Your task to perform on an android device: read, delete, or share a saved page in the chrome app Image 0: 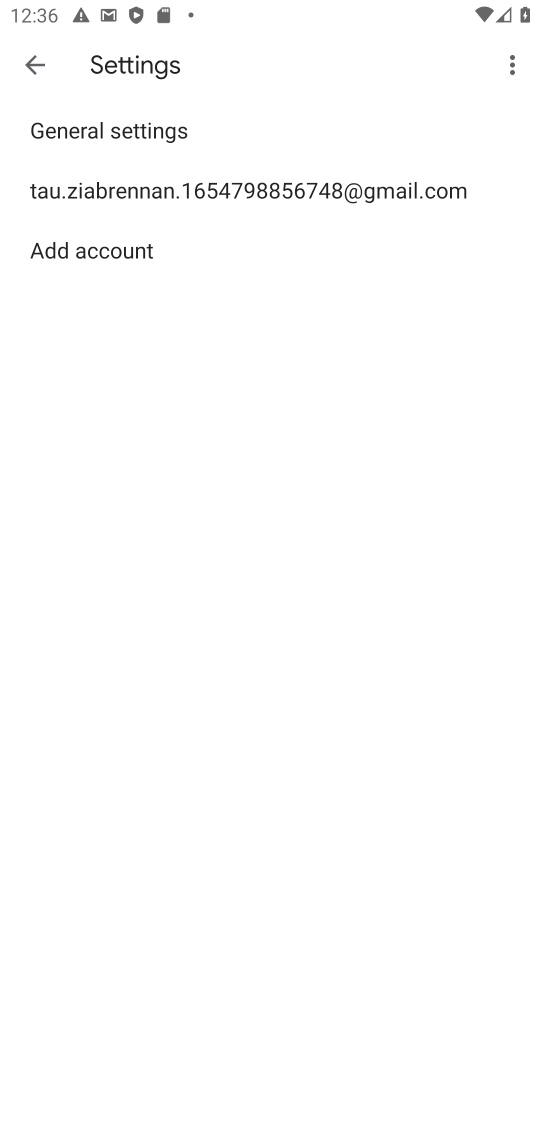
Step 0: press home button
Your task to perform on an android device: read, delete, or share a saved page in the chrome app Image 1: 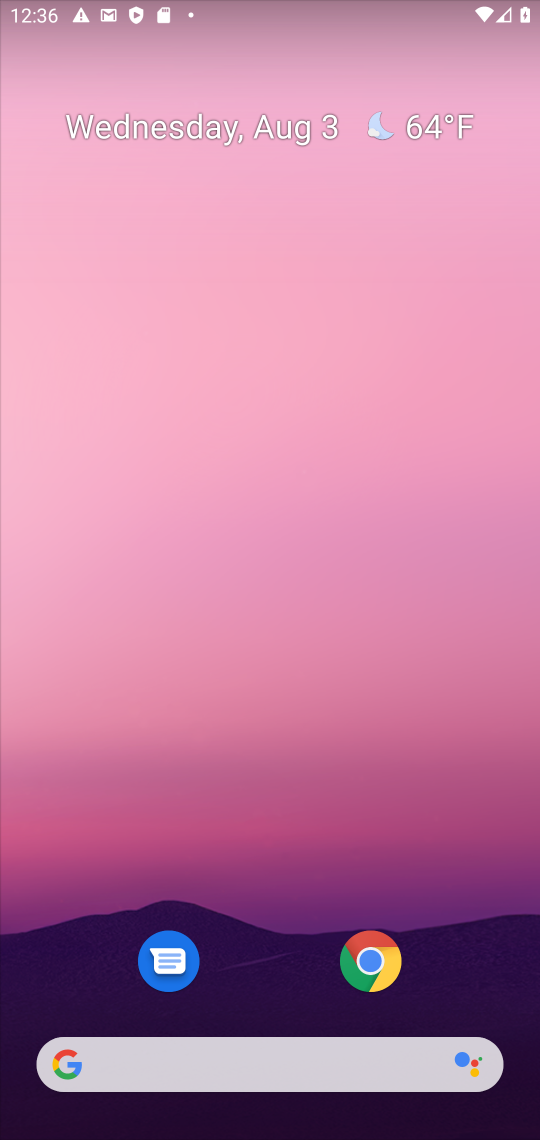
Step 1: click (372, 981)
Your task to perform on an android device: read, delete, or share a saved page in the chrome app Image 2: 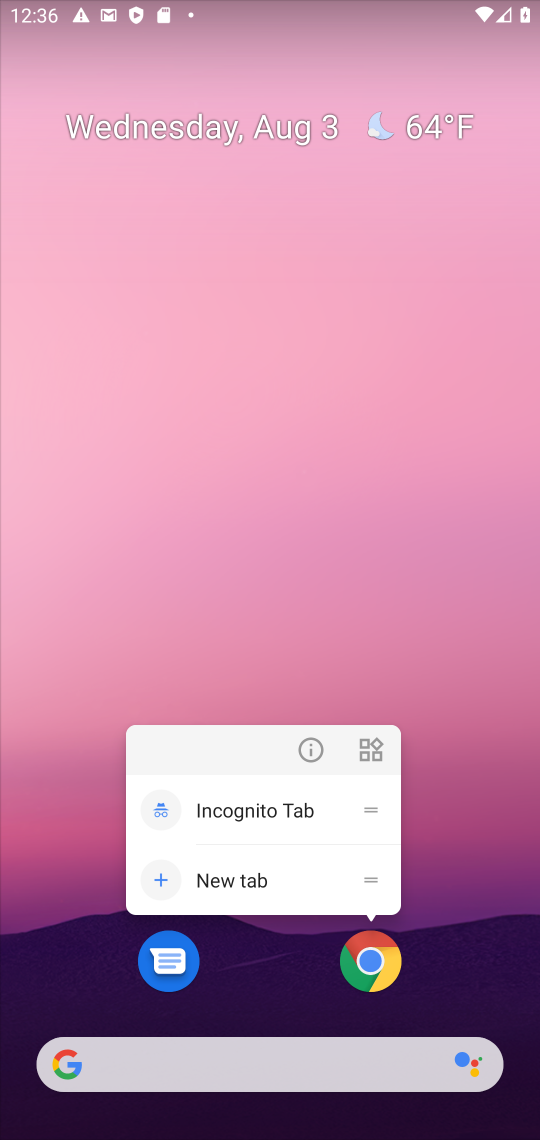
Step 2: click (372, 981)
Your task to perform on an android device: read, delete, or share a saved page in the chrome app Image 3: 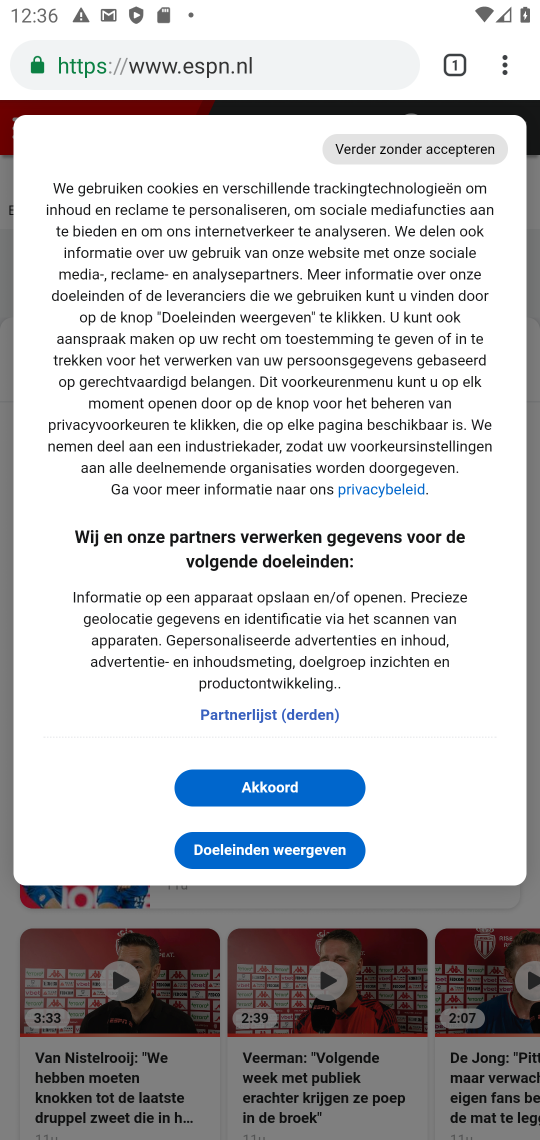
Step 3: drag from (508, 61) to (303, 416)
Your task to perform on an android device: read, delete, or share a saved page in the chrome app Image 4: 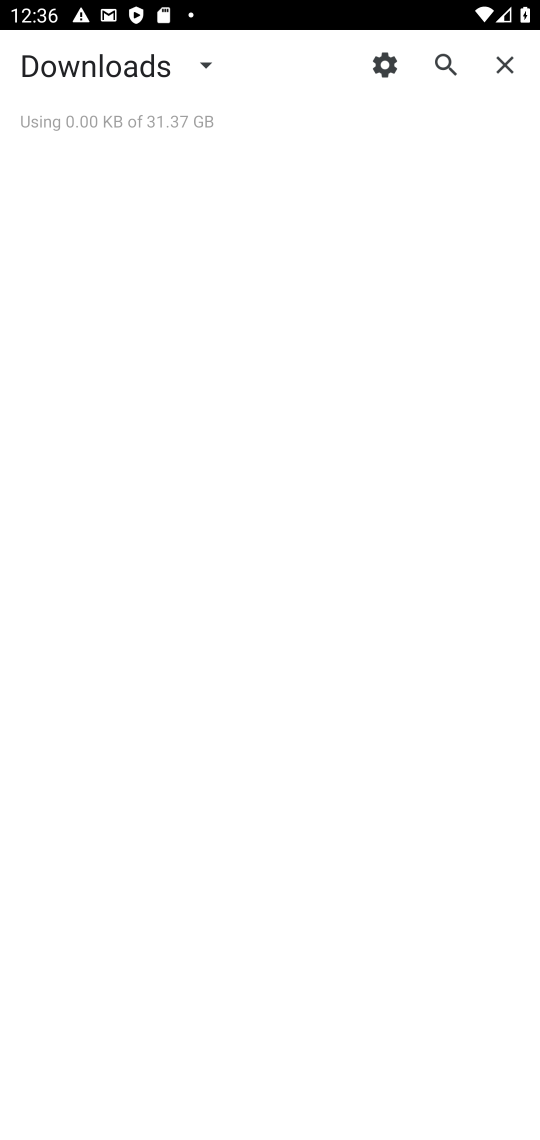
Step 4: click (199, 68)
Your task to perform on an android device: read, delete, or share a saved page in the chrome app Image 5: 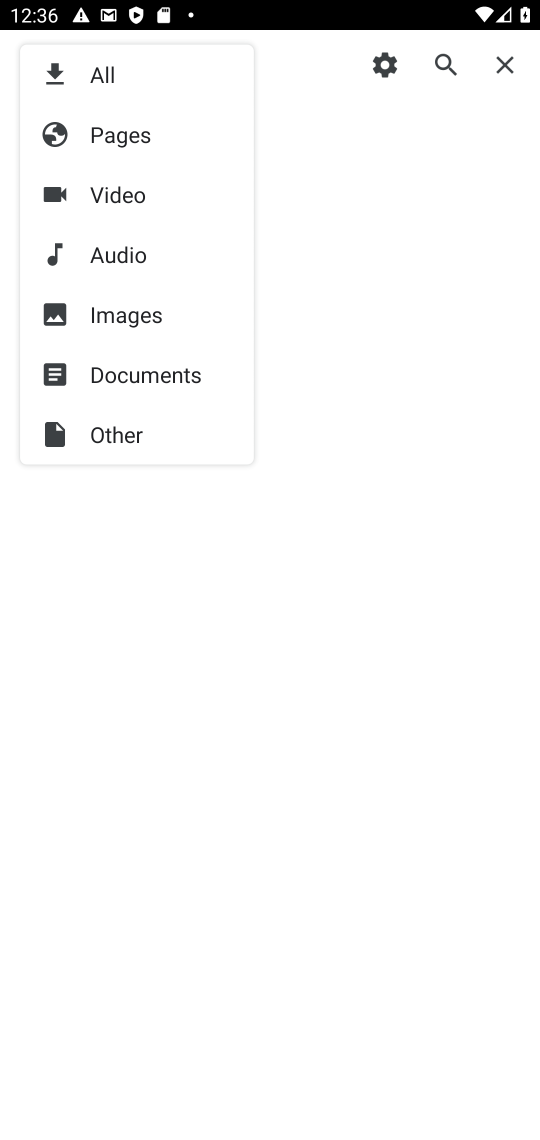
Step 5: click (111, 135)
Your task to perform on an android device: read, delete, or share a saved page in the chrome app Image 6: 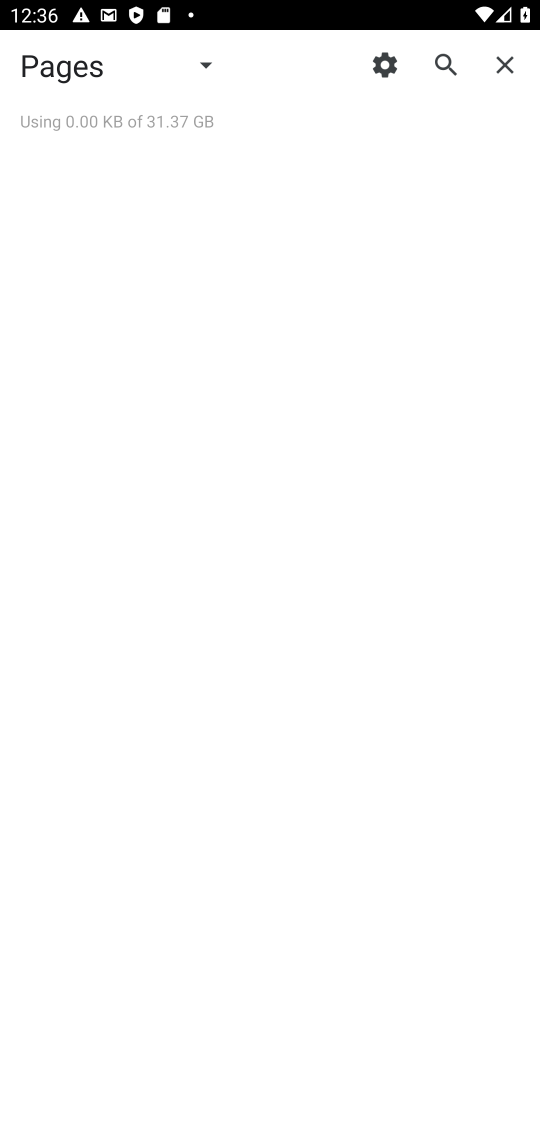
Step 6: task complete